Your task to perform on an android device: turn on data saver in the chrome app Image 0: 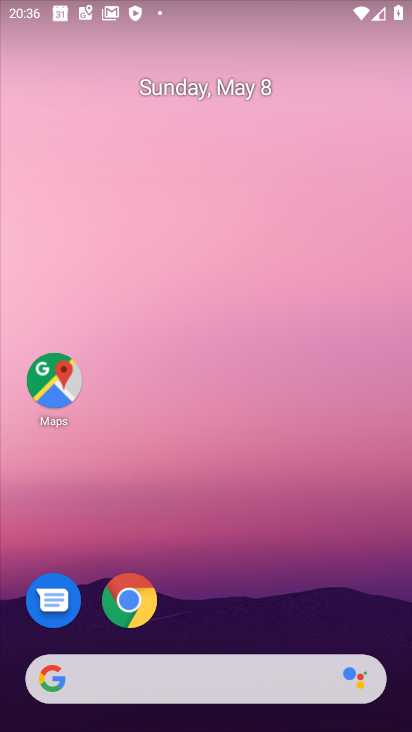
Step 0: drag from (293, 704) to (138, 179)
Your task to perform on an android device: turn on data saver in the chrome app Image 1: 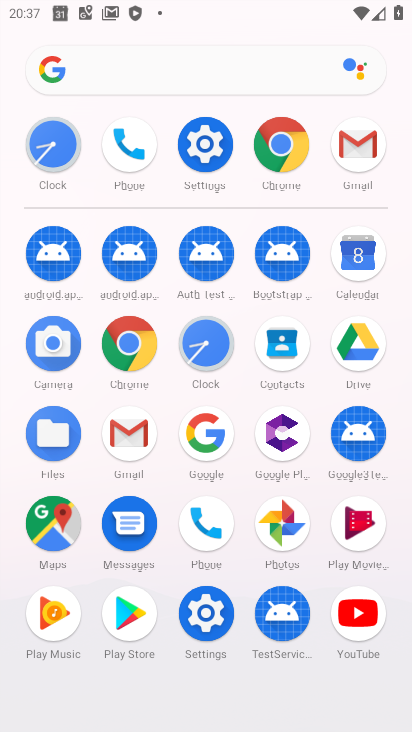
Step 1: click (268, 150)
Your task to perform on an android device: turn on data saver in the chrome app Image 2: 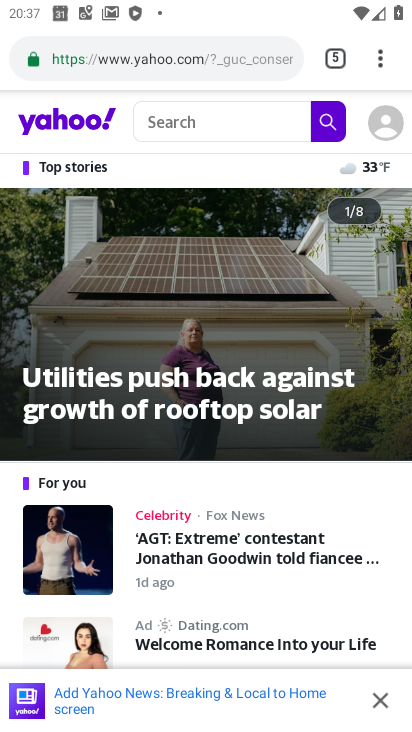
Step 2: click (373, 65)
Your task to perform on an android device: turn on data saver in the chrome app Image 3: 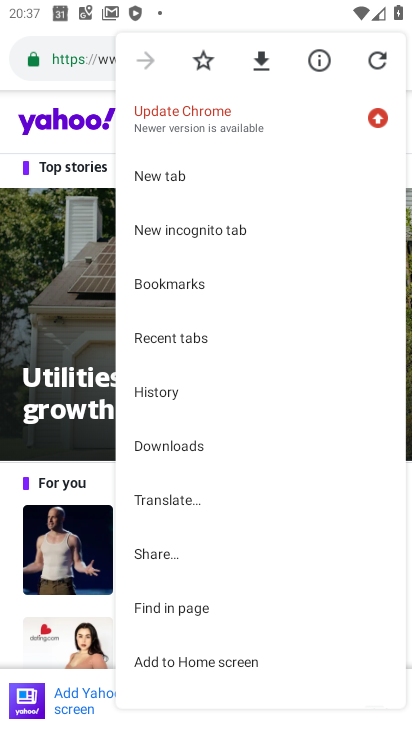
Step 3: drag from (177, 610) to (222, 464)
Your task to perform on an android device: turn on data saver in the chrome app Image 4: 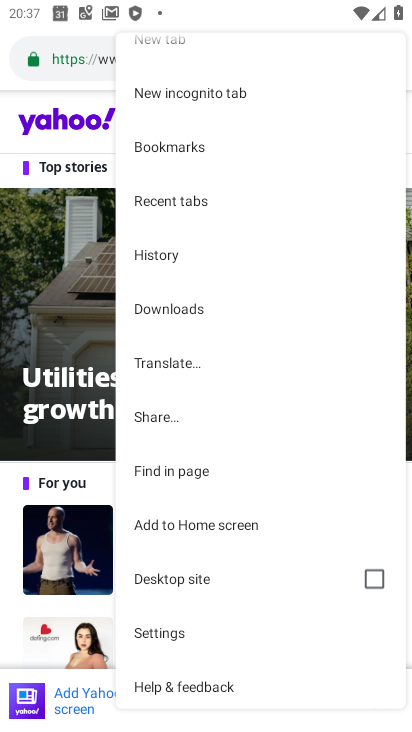
Step 4: click (178, 626)
Your task to perform on an android device: turn on data saver in the chrome app Image 5: 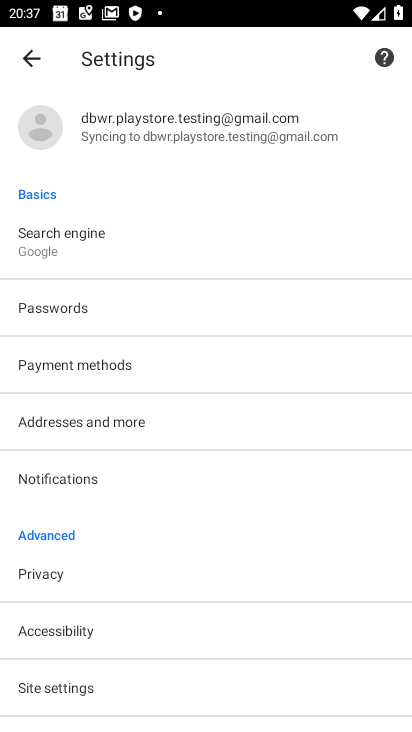
Step 5: drag from (181, 628) to (225, 465)
Your task to perform on an android device: turn on data saver in the chrome app Image 6: 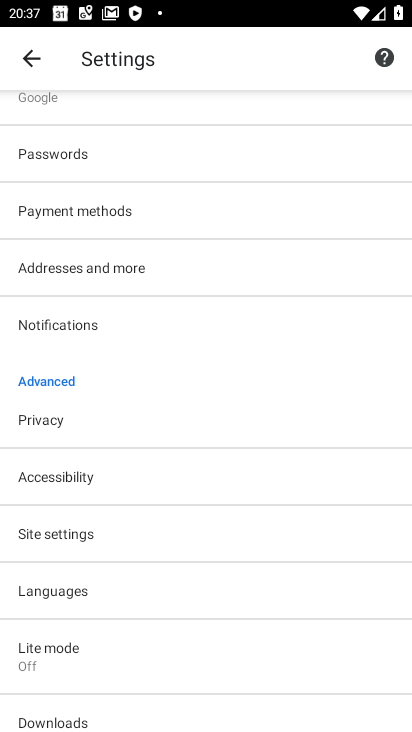
Step 6: click (93, 660)
Your task to perform on an android device: turn on data saver in the chrome app Image 7: 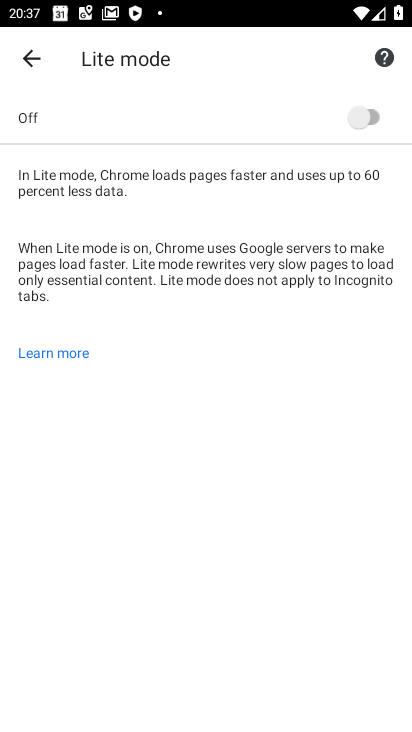
Step 7: click (362, 115)
Your task to perform on an android device: turn on data saver in the chrome app Image 8: 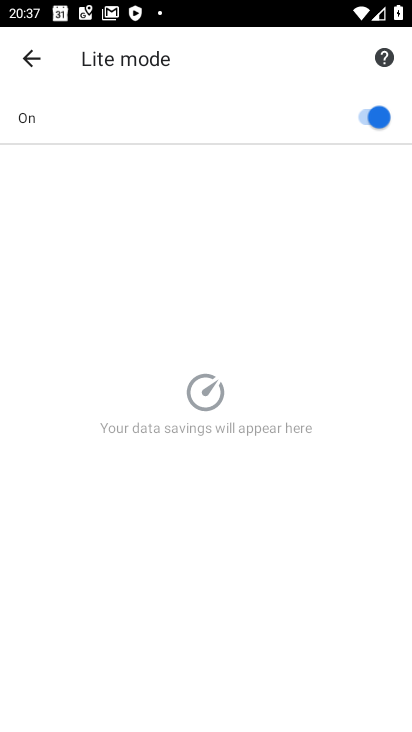
Step 8: task complete